Your task to perform on an android device: see sites visited before in the chrome app Image 0: 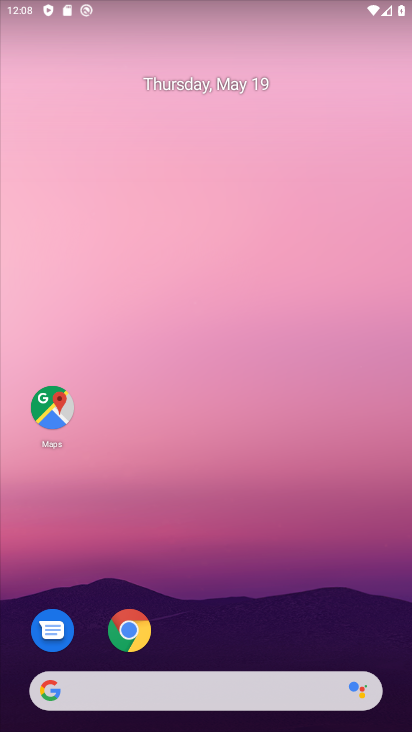
Step 0: drag from (187, 617) to (210, 200)
Your task to perform on an android device: see sites visited before in the chrome app Image 1: 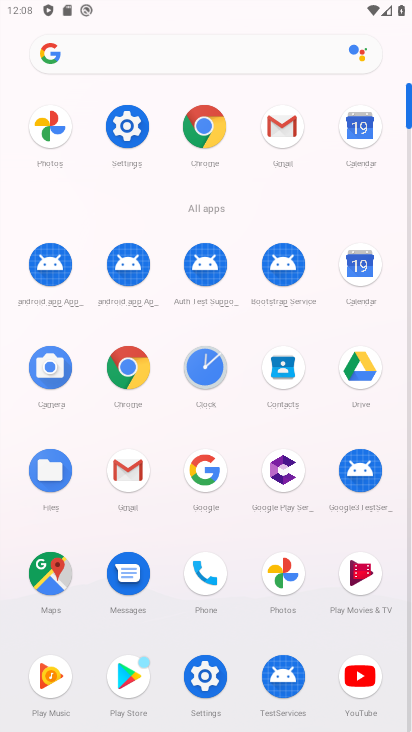
Step 1: click (197, 123)
Your task to perform on an android device: see sites visited before in the chrome app Image 2: 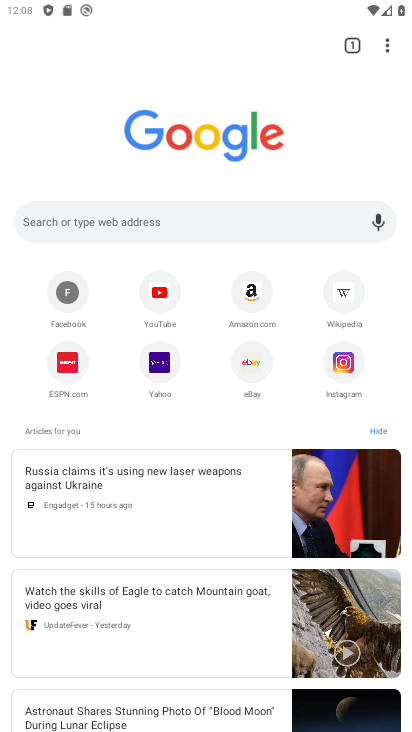
Step 2: click (390, 54)
Your task to perform on an android device: see sites visited before in the chrome app Image 3: 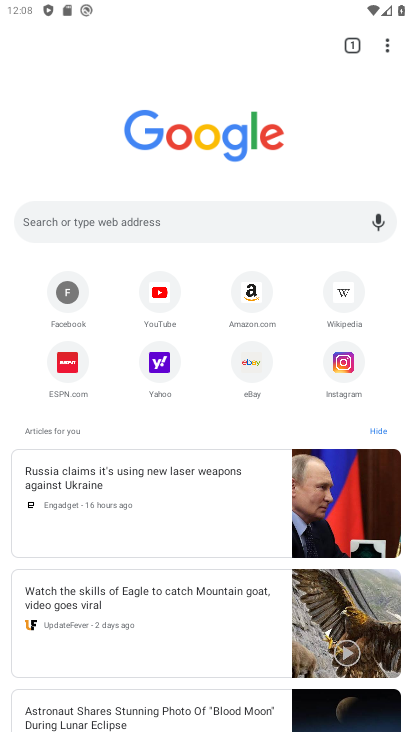
Step 3: click (376, 45)
Your task to perform on an android device: see sites visited before in the chrome app Image 4: 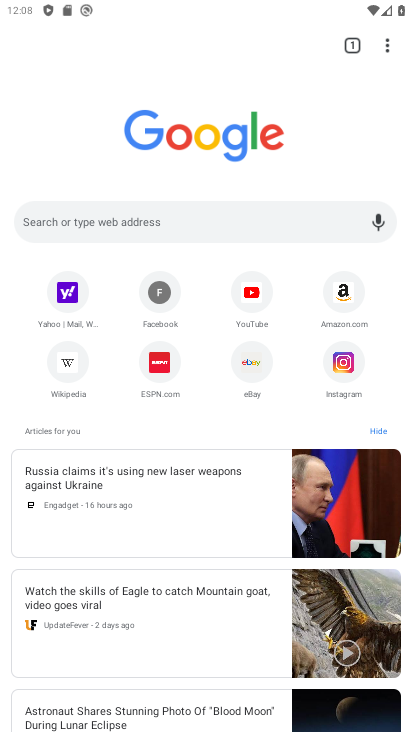
Step 4: click (388, 44)
Your task to perform on an android device: see sites visited before in the chrome app Image 5: 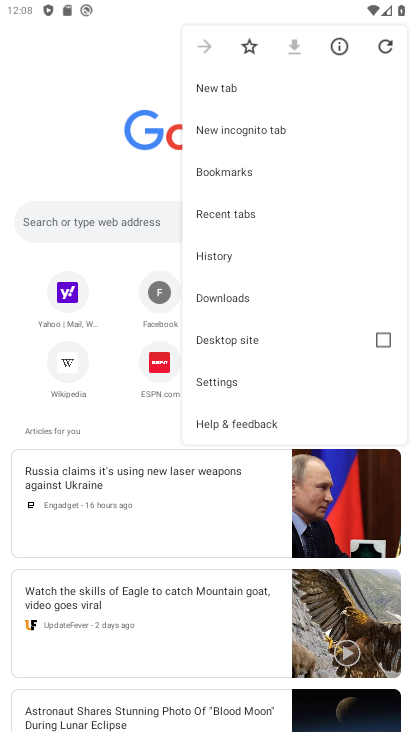
Step 5: click (230, 378)
Your task to perform on an android device: see sites visited before in the chrome app Image 6: 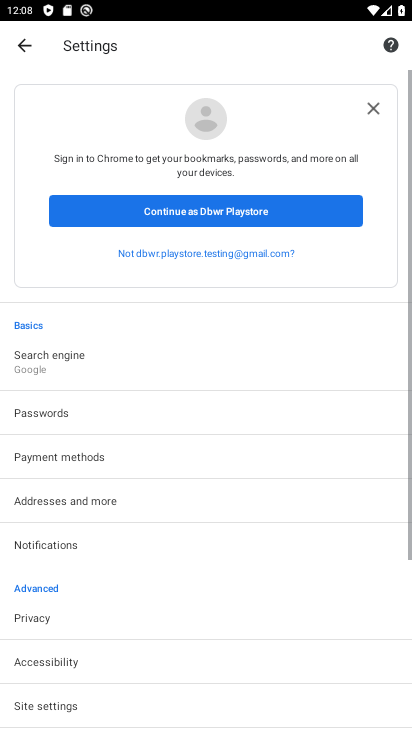
Step 6: drag from (174, 605) to (320, 125)
Your task to perform on an android device: see sites visited before in the chrome app Image 7: 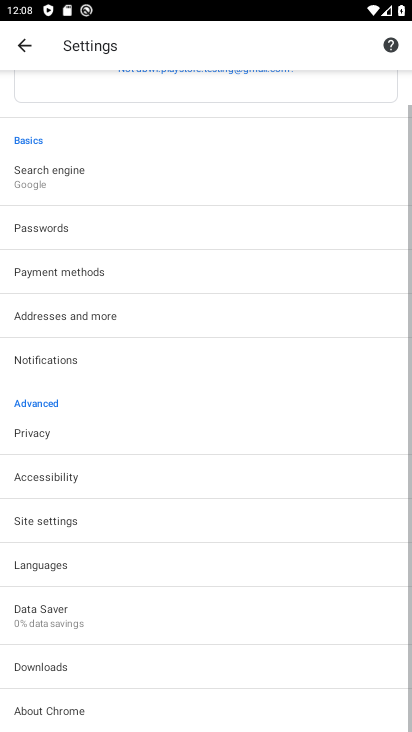
Step 7: drag from (133, 625) to (191, 277)
Your task to perform on an android device: see sites visited before in the chrome app Image 8: 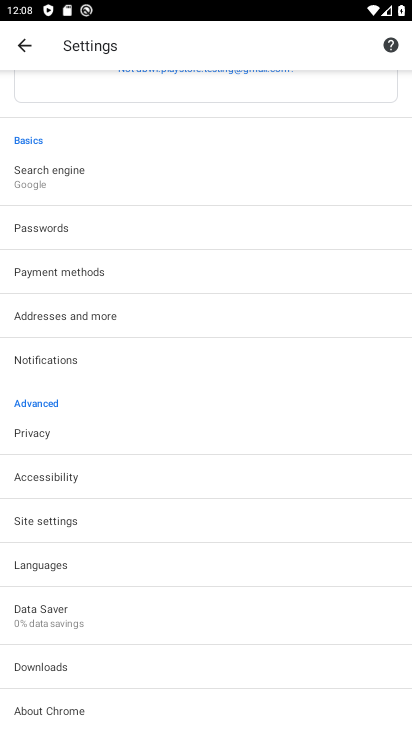
Step 8: click (20, 32)
Your task to perform on an android device: see sites visited before in the chrome app Image 9: 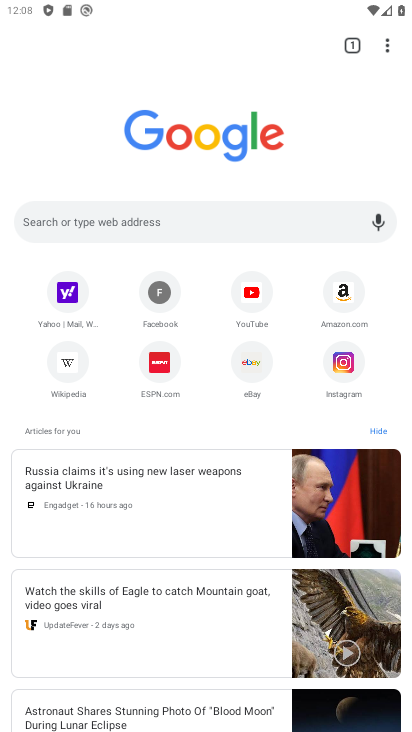
Step 9: click (391, 45)
Your task to perform on an android device: see sites visited before in the chrome app Image 10: 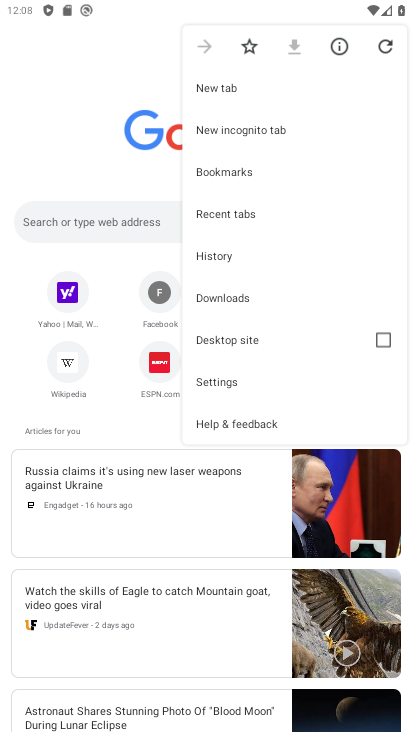
Step 10: click (227, 262)
Your task to perform on an android device: see sites visited before in the chrome app Image 11: 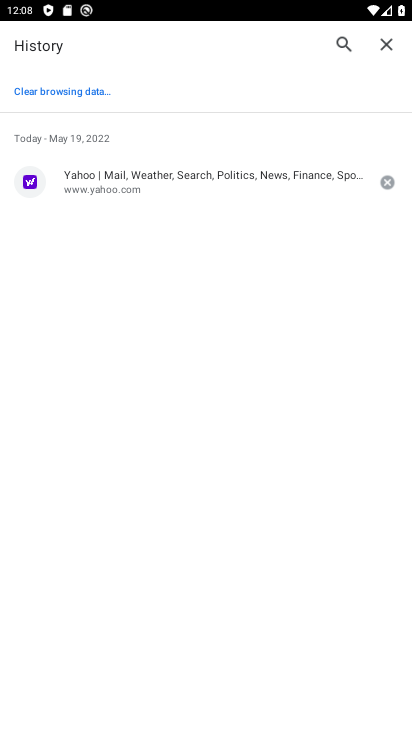
Step 11: task complete